Your task to perform on an android device: Clear the shopping cart on bestbuy. Add logitech g910 to the cart on bestbuy Image 0: 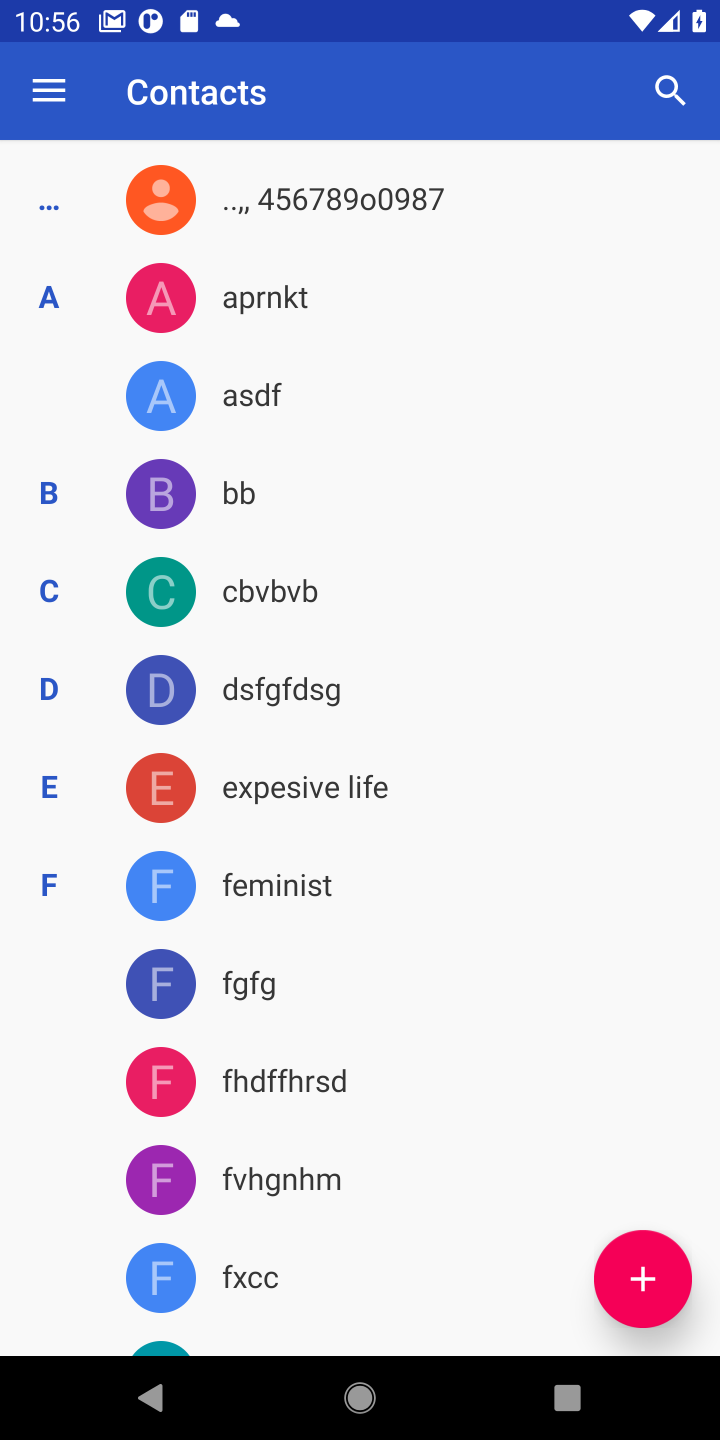
Step 0: press home button
Your task to perform on an android device: Clear the shopping cart on bestbuy. Add logitech g910 to the cart on bestbuy Image 1: 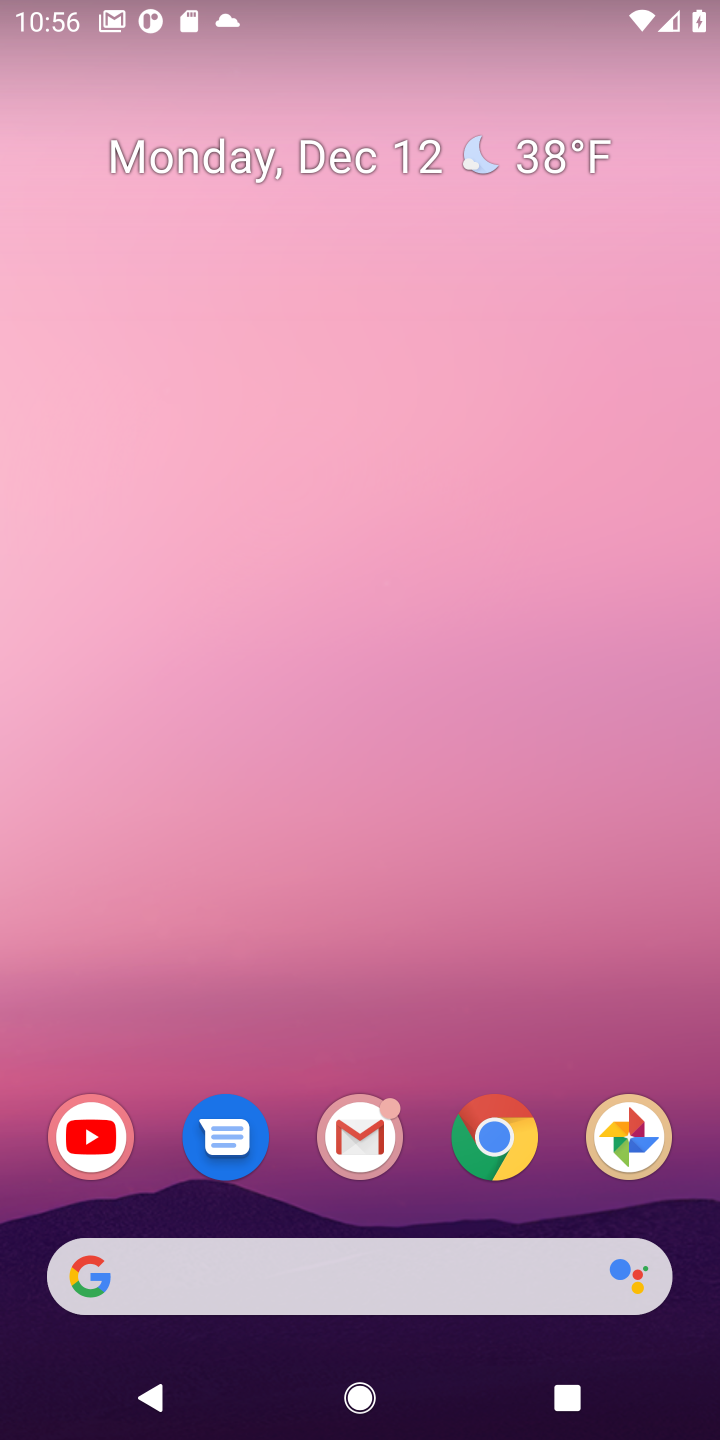
Step 1: click (197, 1277)
Your task to perform on an android device: Clear the shopping cart on bestbuy. Add logitech g910 to the cart on bestbuy Image 2: 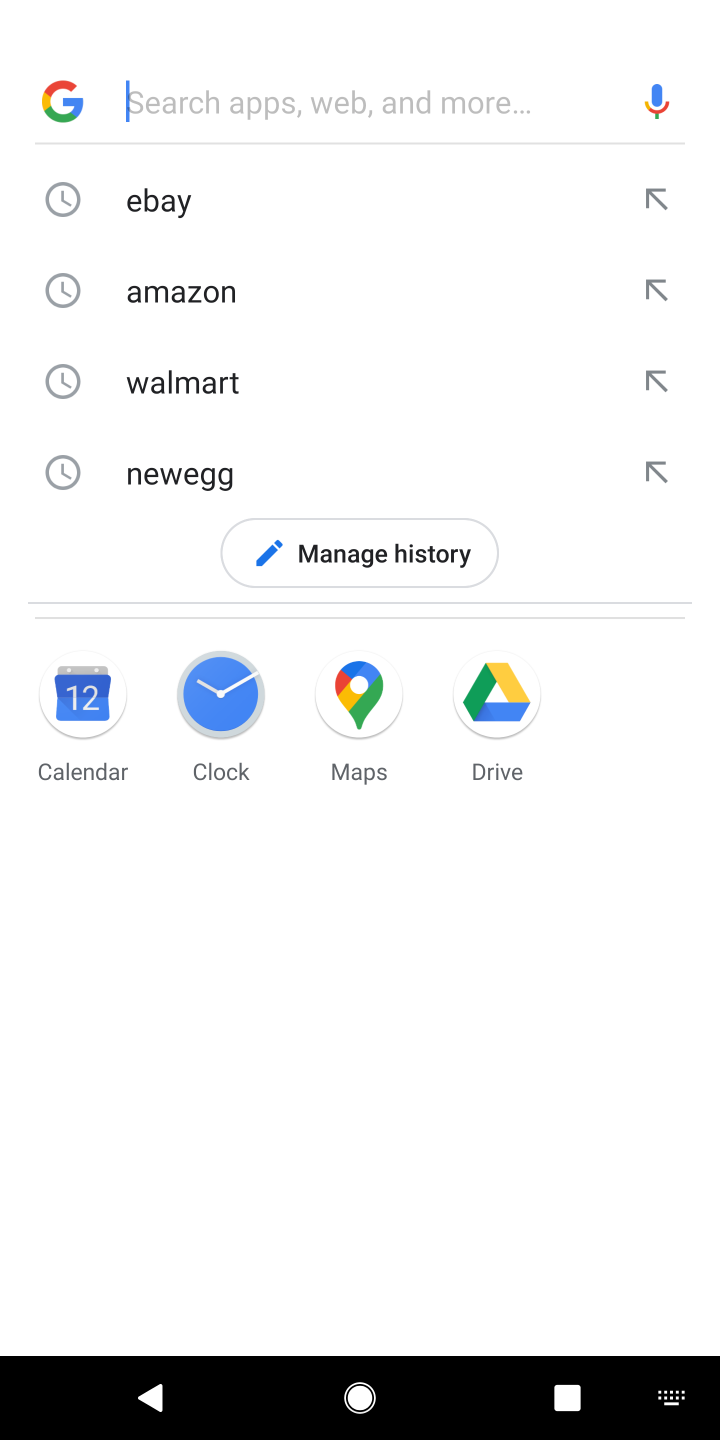
Step 2: type "bestbuy"
Your task to perform on an android device: Clear the shopping cart on bestbuy. Add logitech g910 to the cart on bestbuy Image 3: 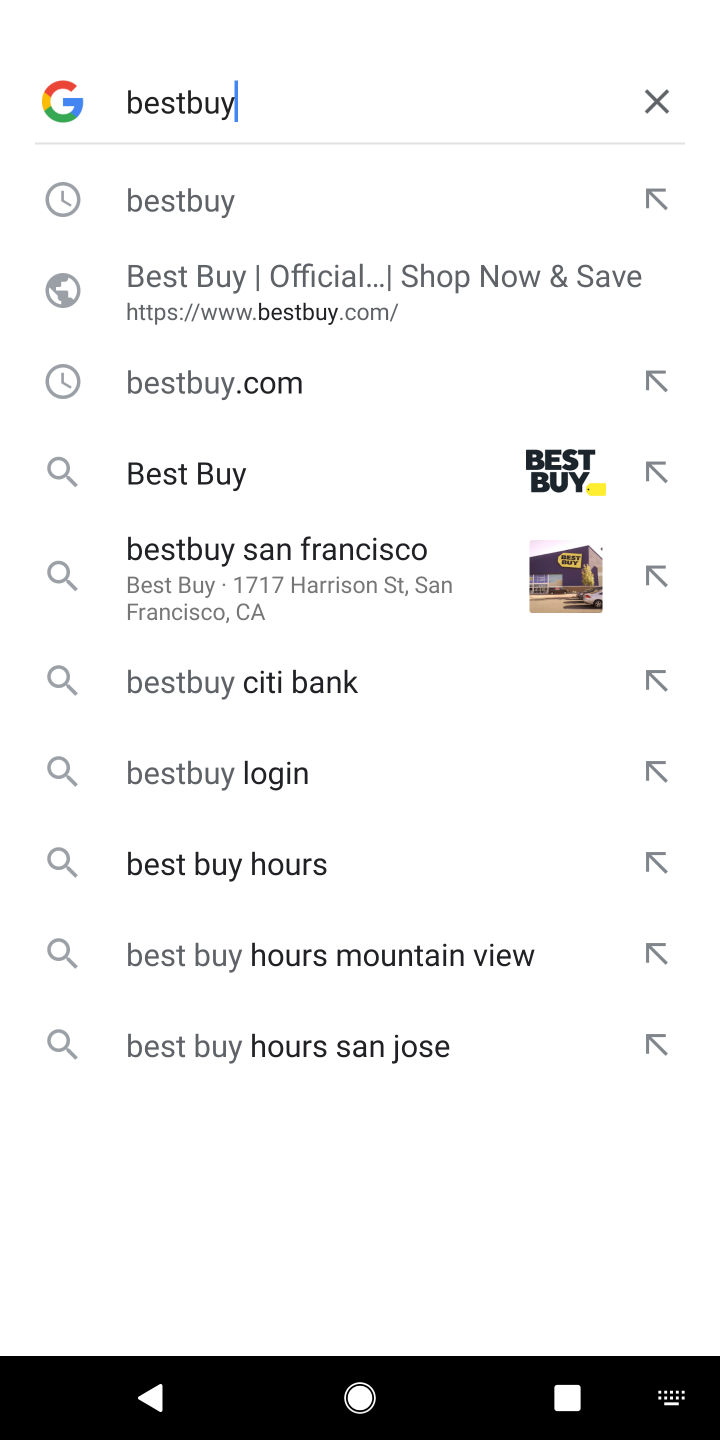
Step 3: click (256, 212)
Your task to perform on an android device: Clear the shopping cart on bestbuy. Add logitech g910 to the cart on bestbuy Image 4: 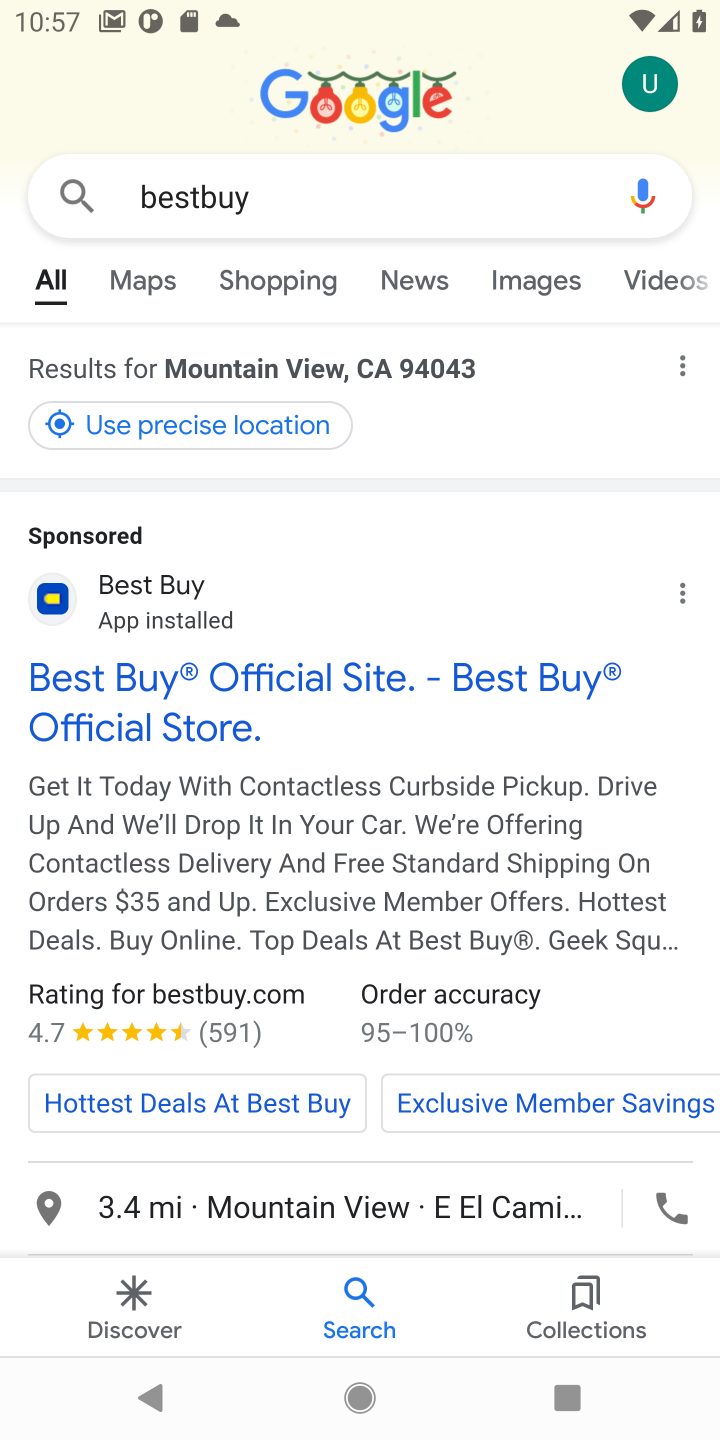
Step 4: click (177, 696)
Your task to perform on an android device: Clear the shopping cart on bestbuy. Add logitech g910 to the cart on bestbuy Image 5: 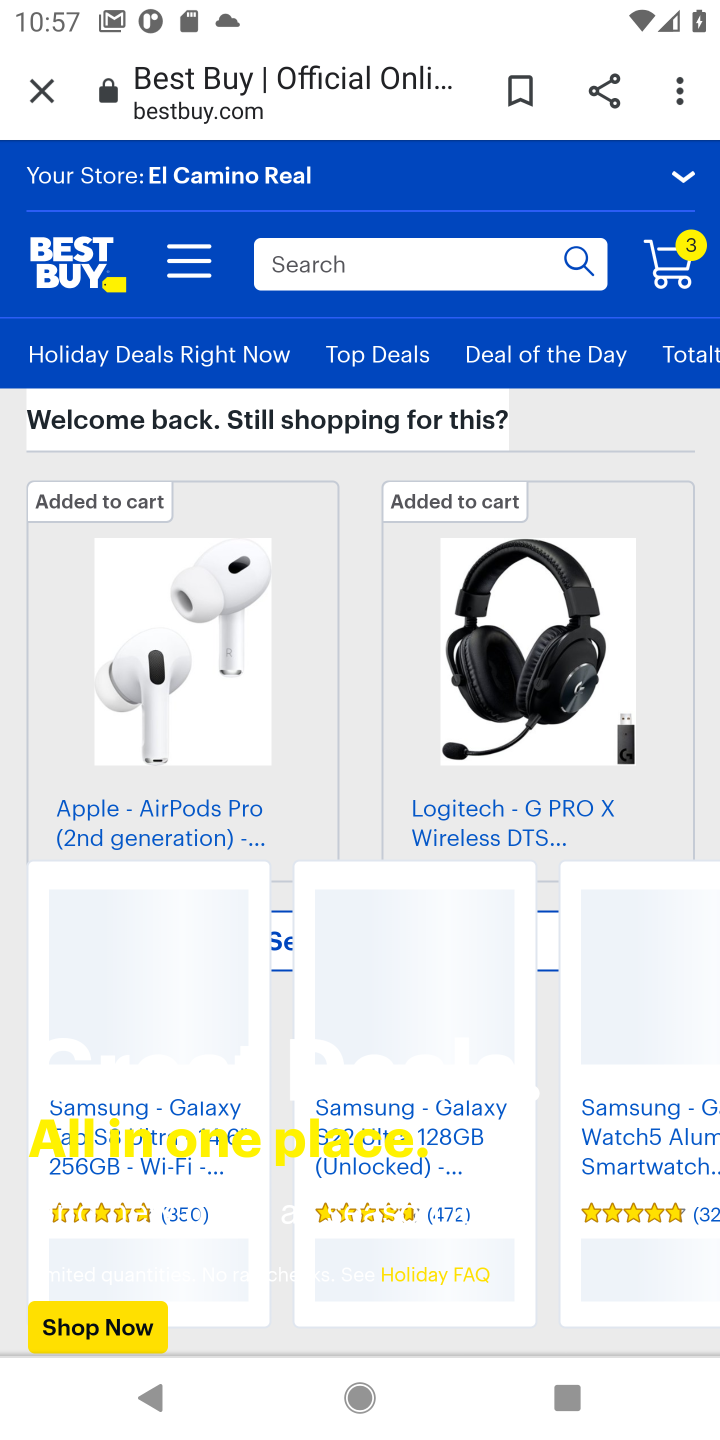
Step 5: click (419, 258)
Your task to perform on an android device: Clear the shopping cart on bestbuy. Add logitech g910 to the cart on bestbuy Image 6: 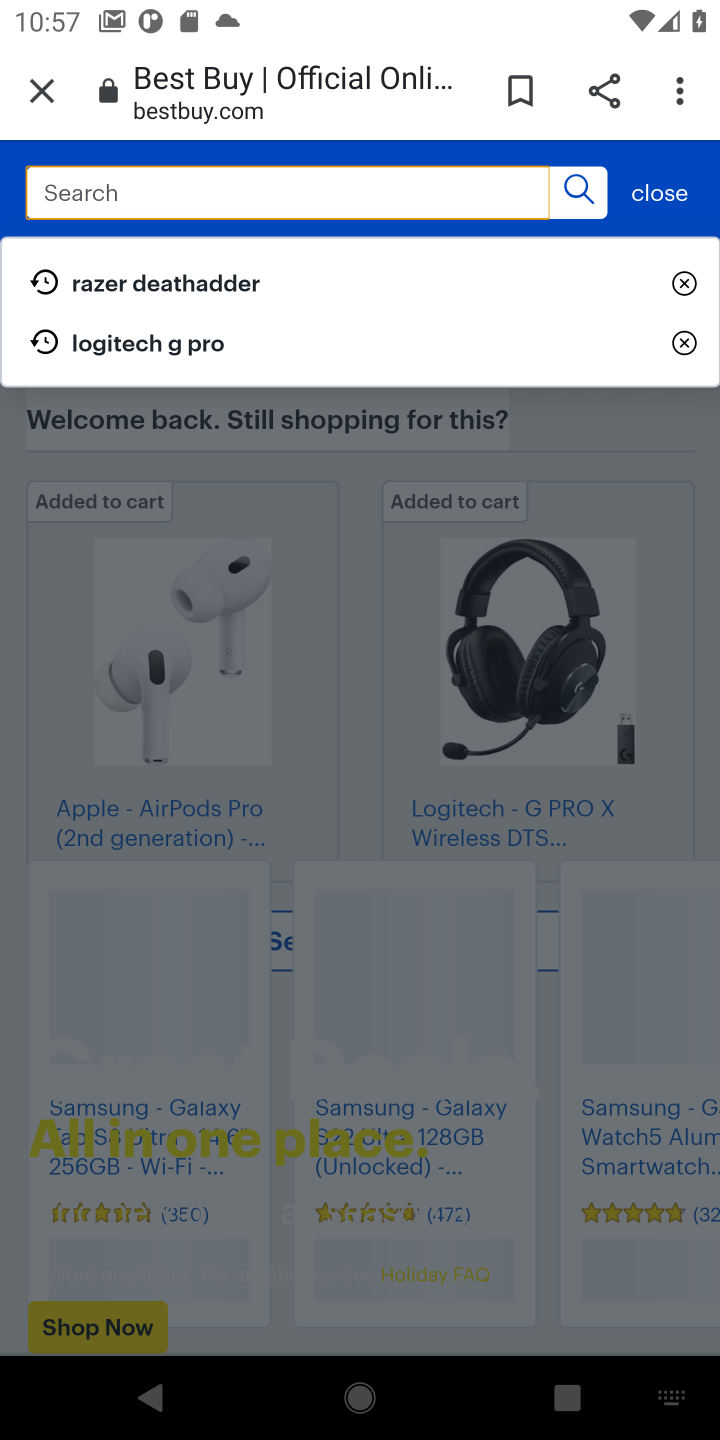
Step 6: type "logitech gpro"
Your task to perform on an android device: Clear the shopping cart on bestbuy. Add logitech g910 to the cart on bestbuy Image 7: 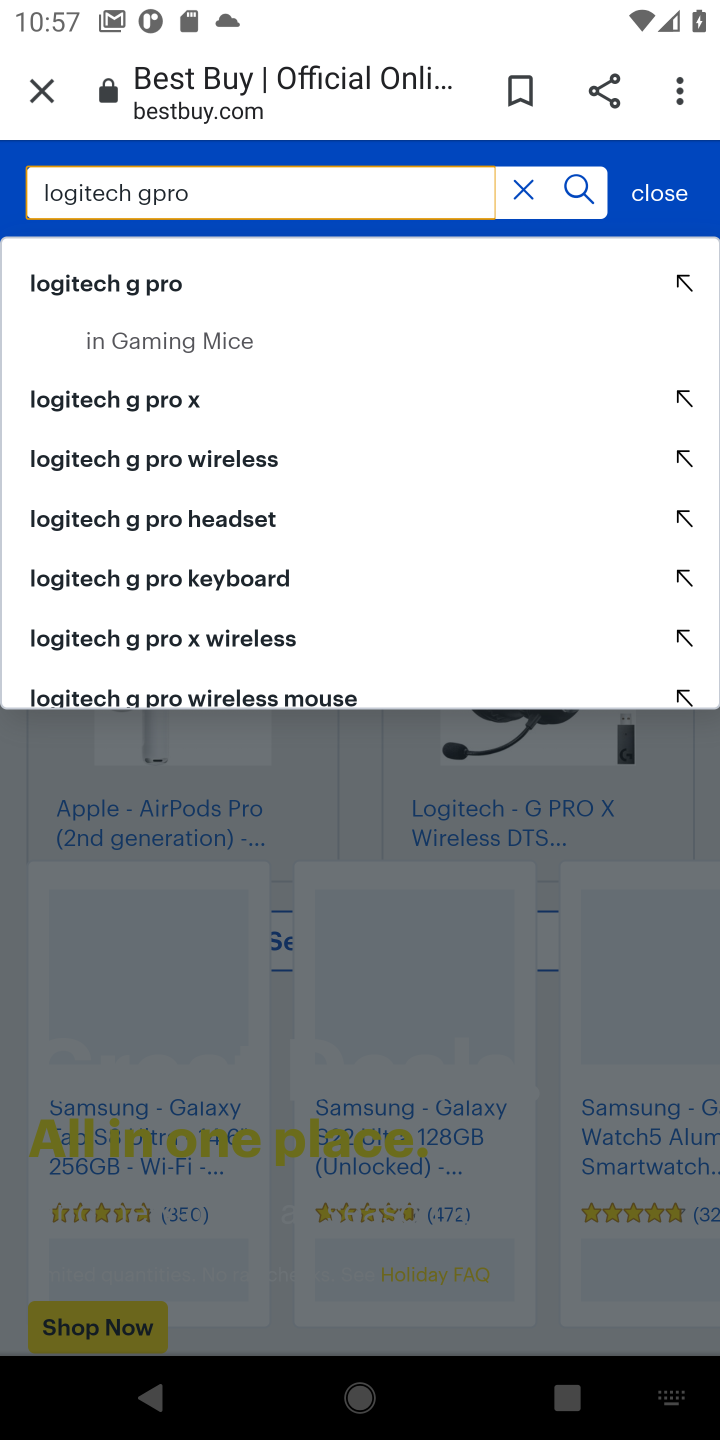
Step 7: click (105, 282)
Your task to perform on an android device: Clear the shopping cart on bestbuy. Add logitech g910 to the cart on bestbuy Image 8: 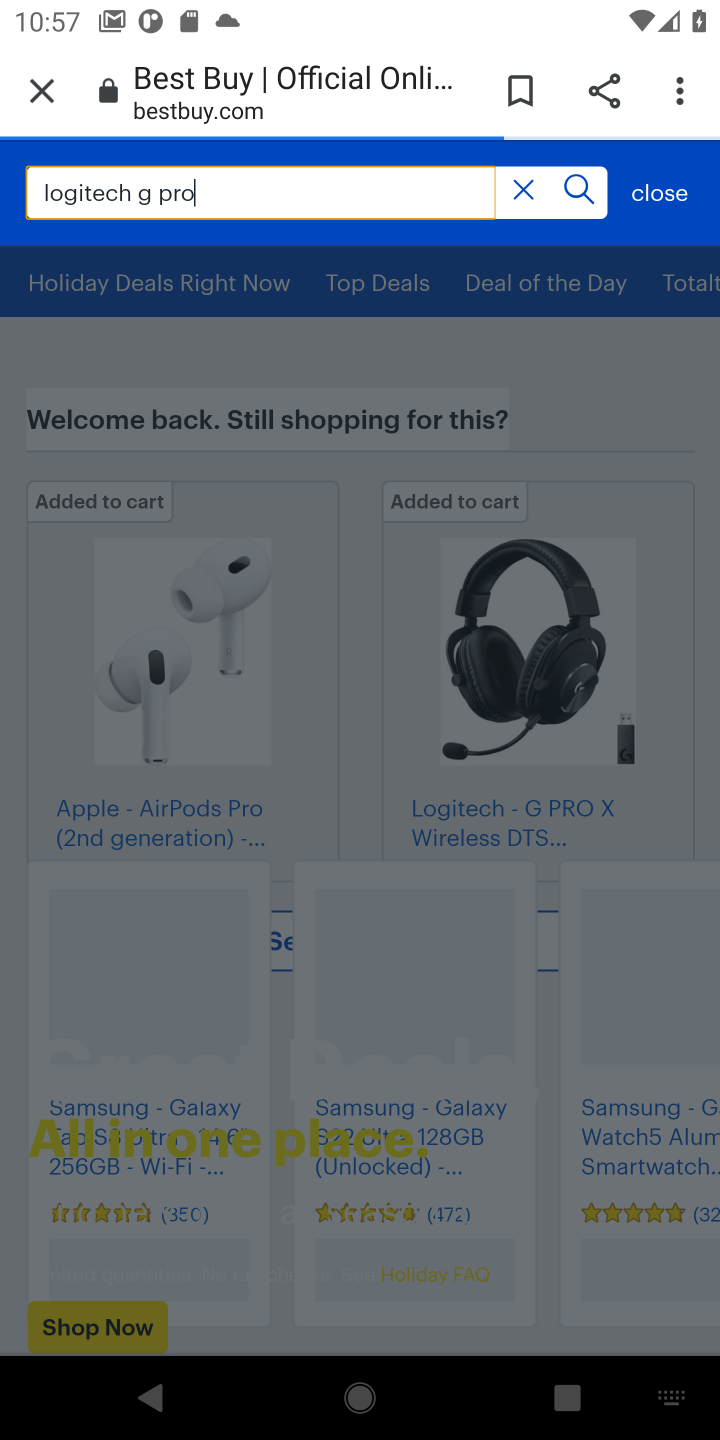
Step 8: click (589, 209)
Your task to perform on an android device: Clear the shopping cart on bestbuy. Add logitech g910 to the cart on bestbuy Image 9: 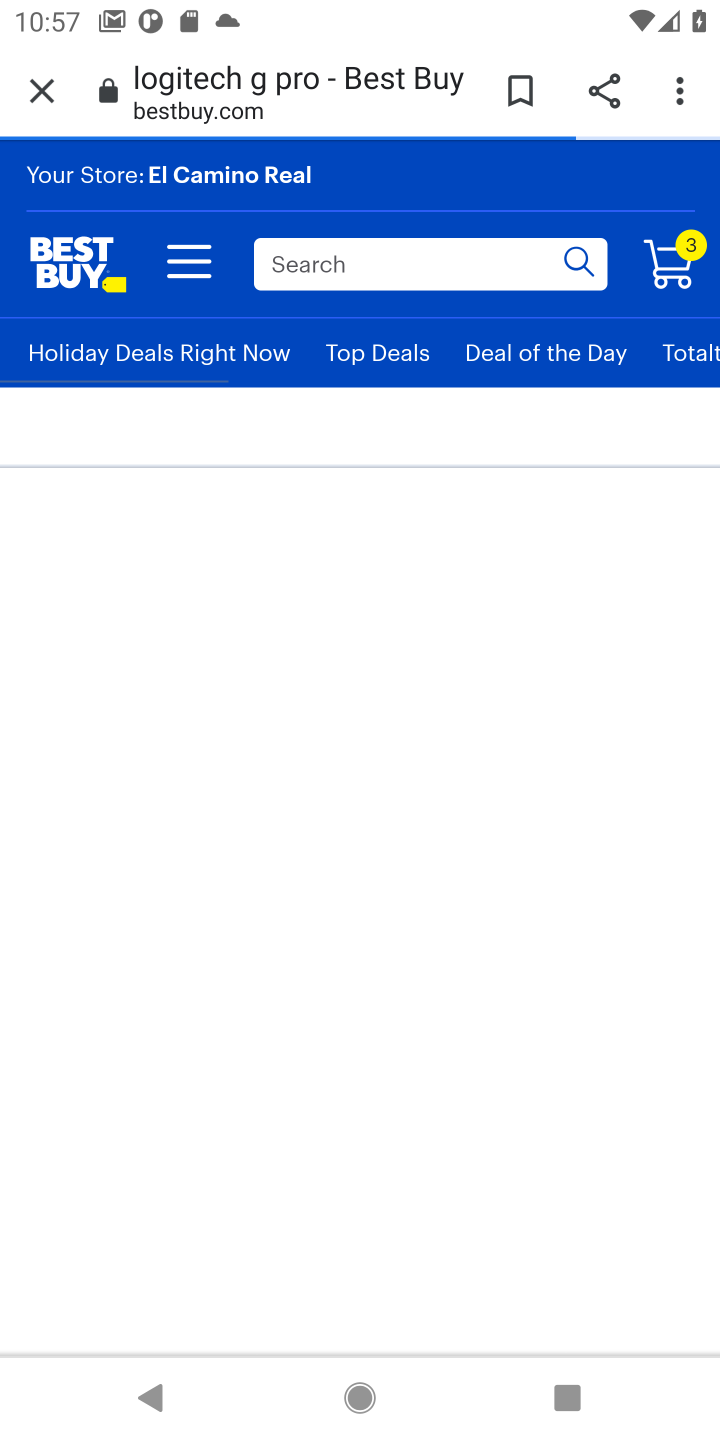
Step 9: task complete